Your task to perform on an android device: turn off improve location accuracy Image 0: 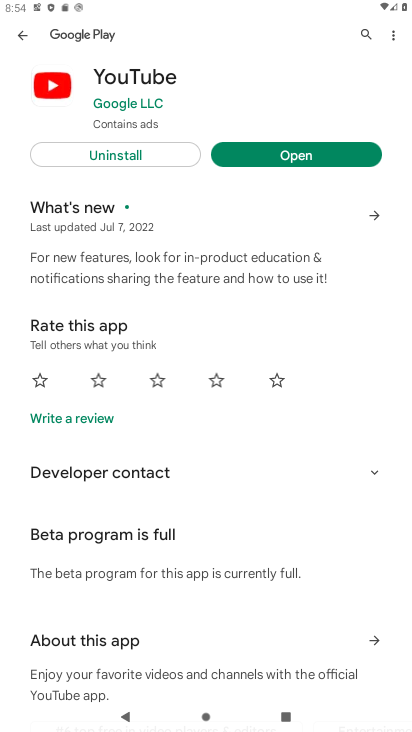
Step 0: press home button
Your task to perform on an android device: turn off improve location accuracy Image 1: 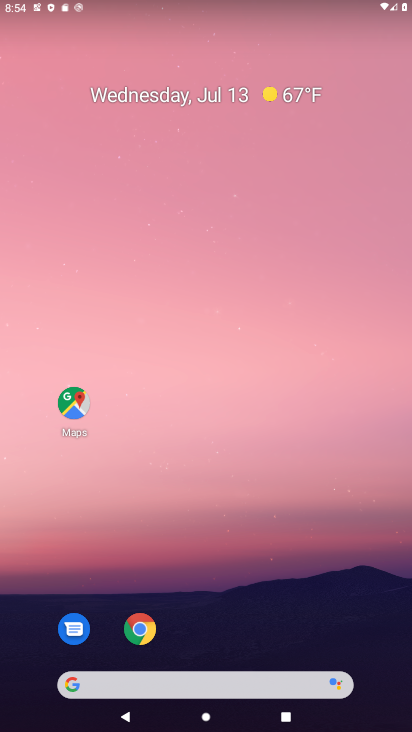
Step 1: drag from (241, 643) to (141, 0)
Your task to perform on an android device: turn off improve location accuracy Image 2: 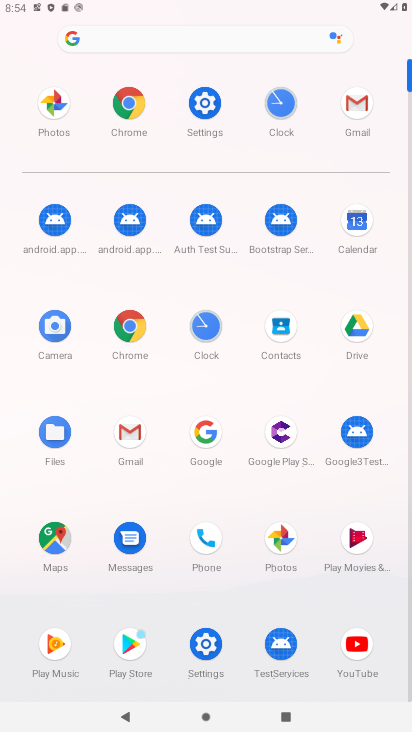
Step 2: click (197, 650)
Your task to perform on an android device: turn off improve location accuracy Image 3: 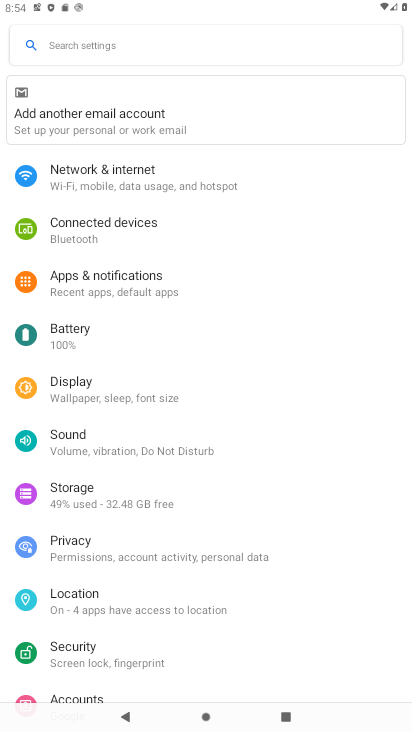
Step 3: click (112, 602)
Your task to perform on an android device: turn off improve location accuracy Image 4: 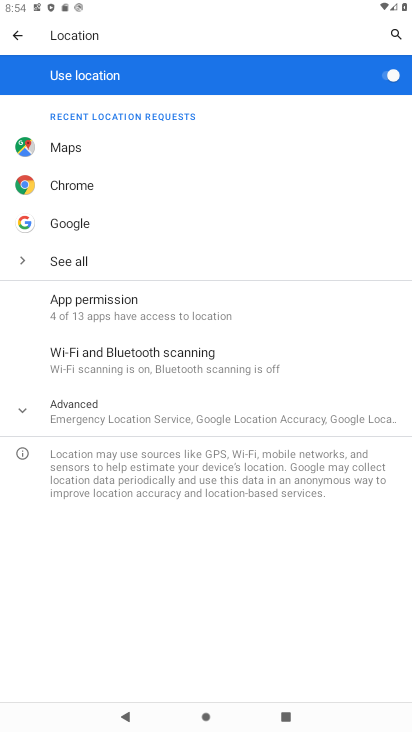
Step 4: click (255, 417)
Your task to perform on an android device: turn off improve location accuracy Image 5: 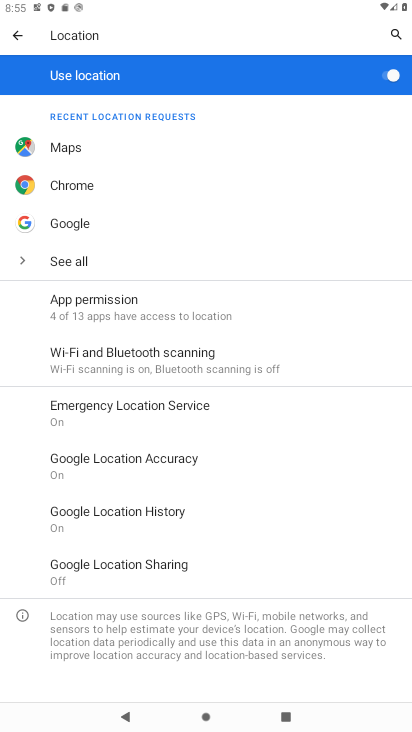
Step 5: click (178, 456)
Your task to perform on an android device: turn off improve location accuracy Image 6: 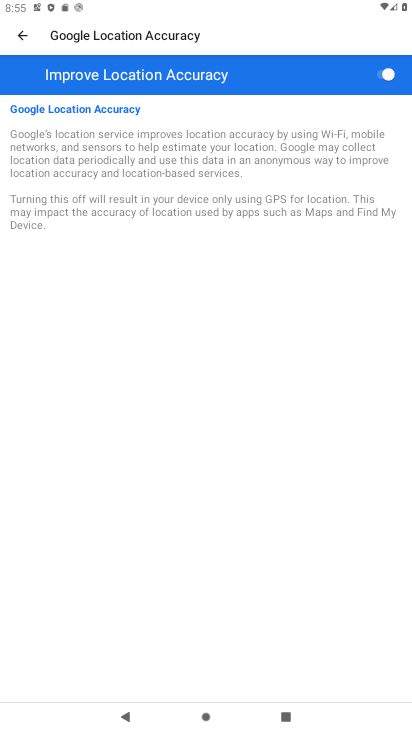
Step 6: click (376, 68)
Your task to perform on an android device: turn off improve location accuracy Image 7: 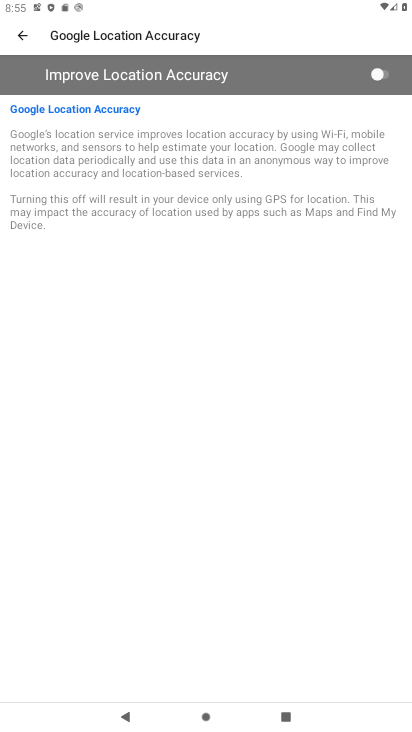
Step 7: task complete